Your task to perform on an android device: change notification settings in the gmail app Image 0: 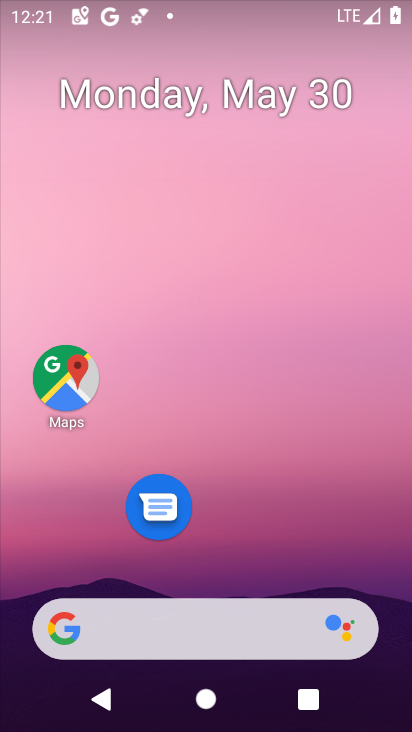
Step 0: drag from (288, 442) to (315, 47)
Your task to perform on an android device: change notification settings in the gmail app Image 1: 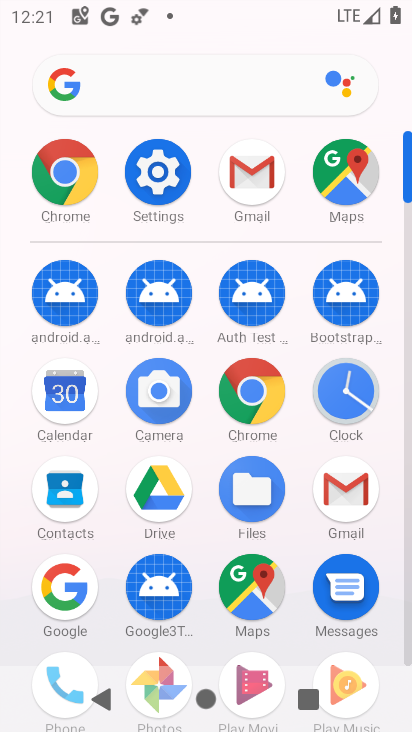
Step 1: click (347, 503)
Your task to perform on an android device: change notification settings in the gmail app Image 2: 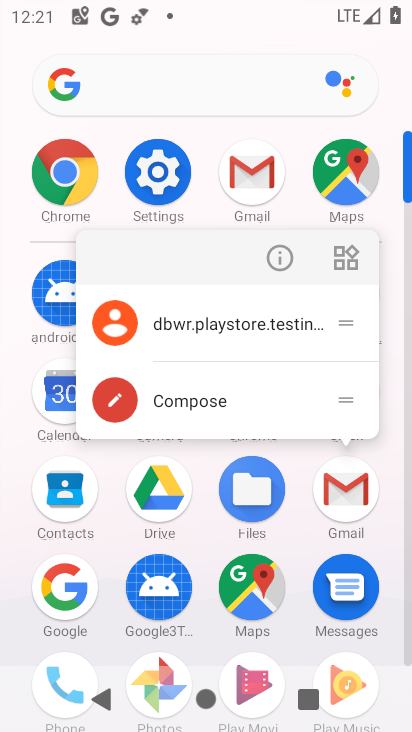
Step 2: click (284, 256)
Your task to perform on an android device: change notification settings in the gmail app Image 3: 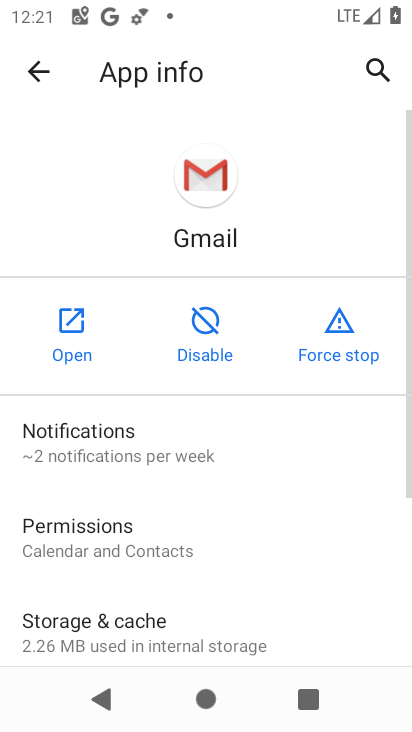
Step 3: click (184, 440)
Your task to perform on an android device: change notification settings in the gmail app Image 4: 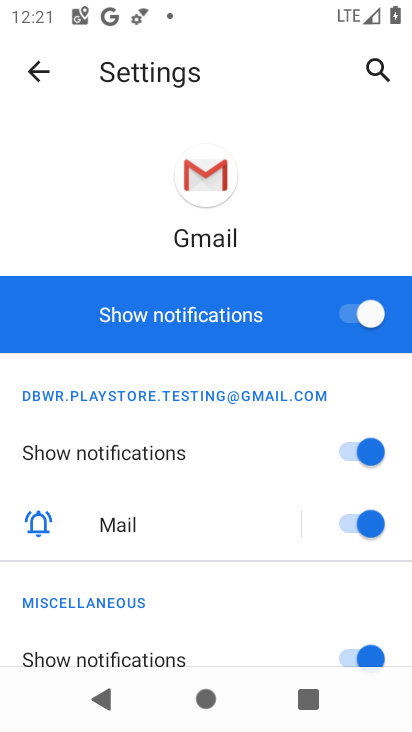
Step 4: click (358, 521)
Your task to perform on an android device: change notification settings in the gmail app Image 5: 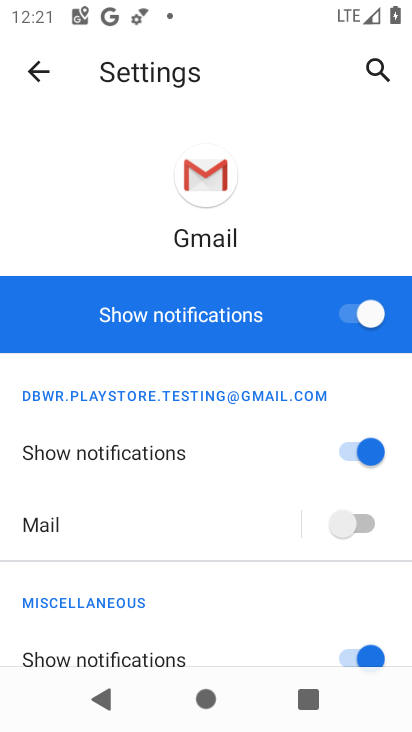
Step 5: task complete